Your task to perform on an android device: check google app version Image 0: 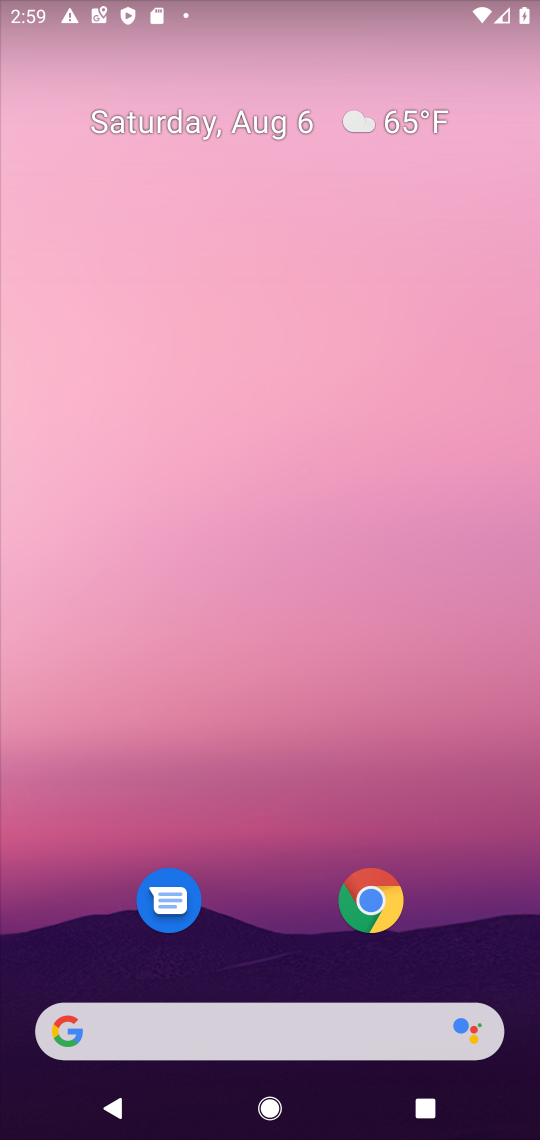
Step 0: press home button
Your task to perform on an android device: check google app version Image 1: 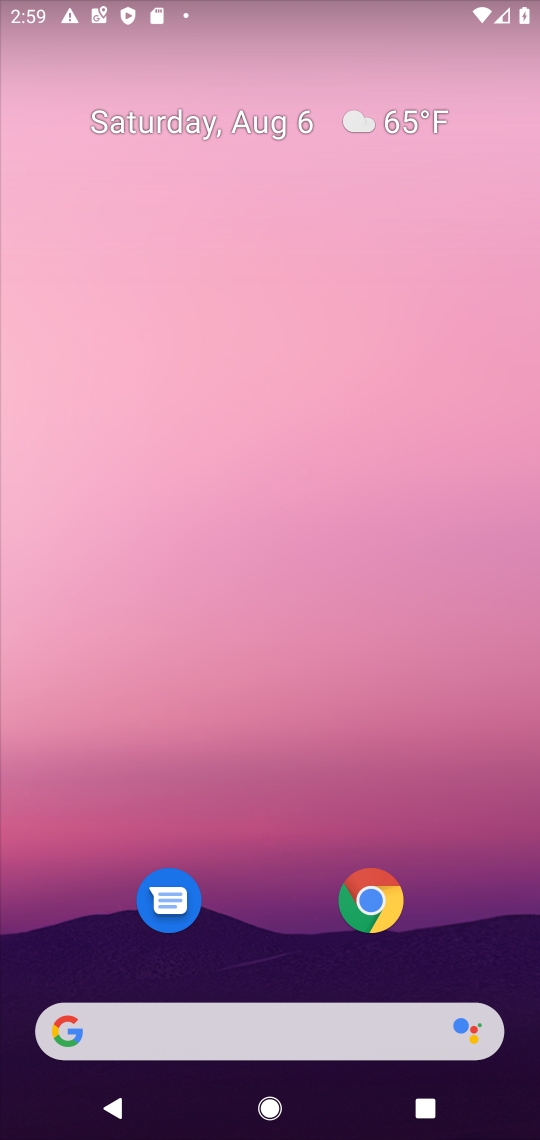
Step 1: drag from (260, 718) to (292, 260)
Your task to perform on an android device: check google app version Image 2: 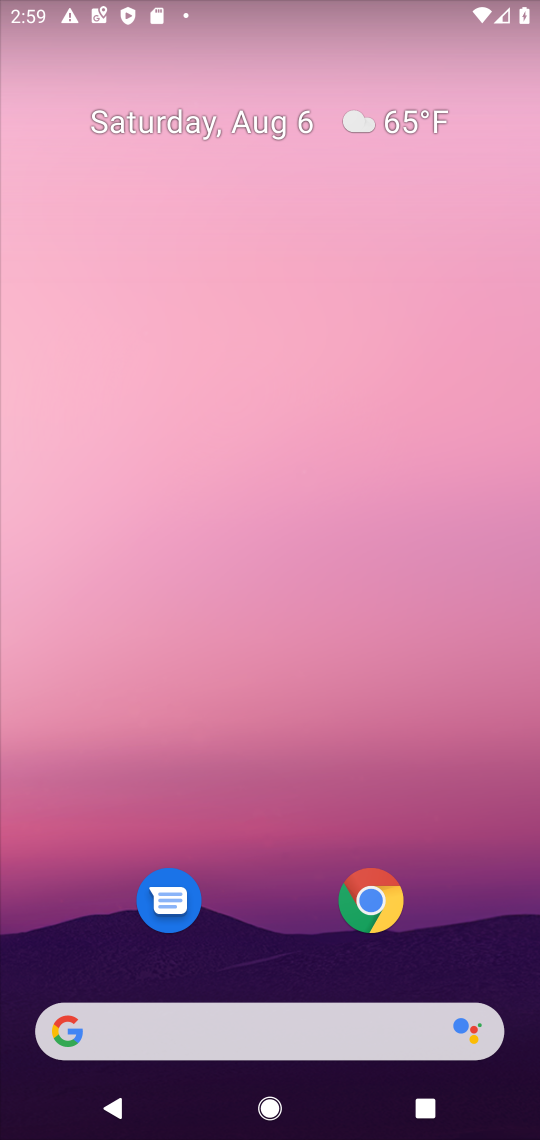
Step 2: drag from (291, 435) to (300, 95)
Your task to perform on an android device: check google app version Image 3: 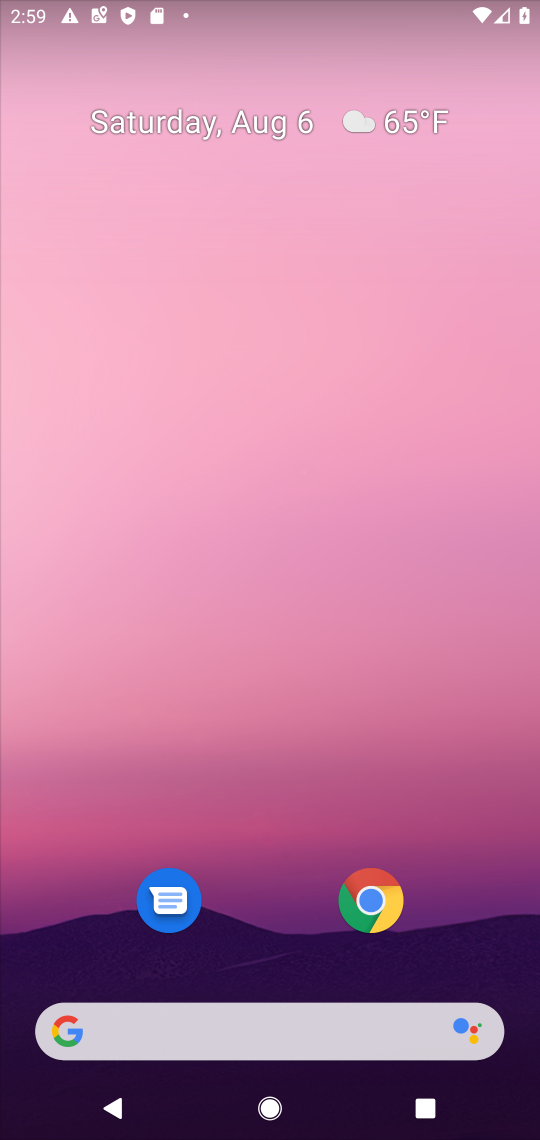
Step 3: drag from (244, 904) to (383, 25)
Your task to perform on an android device: check google app version Image 4: 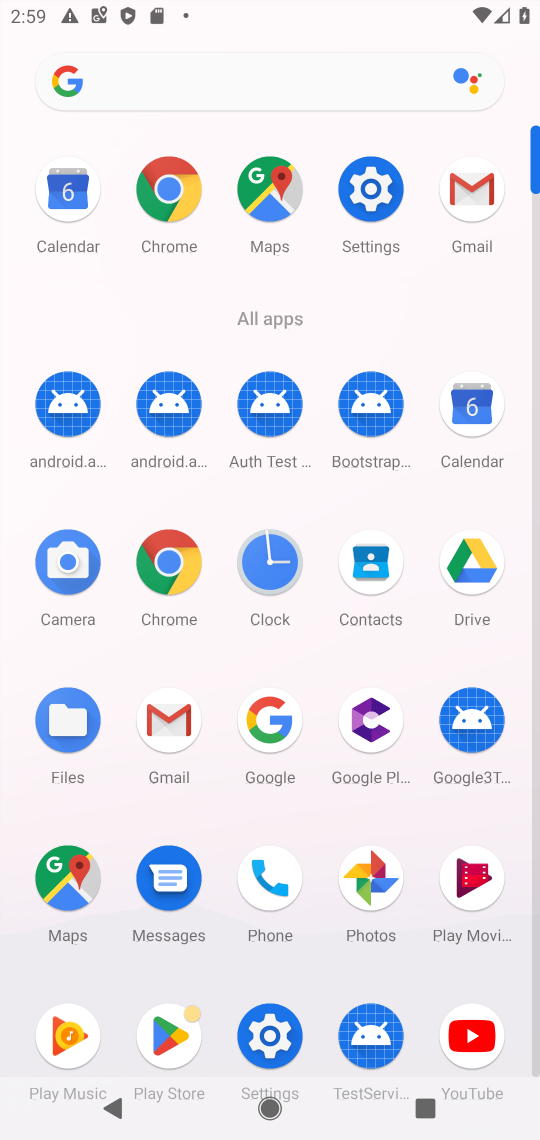
Step 4: click (271, 721)
Your task to perform on an android device: check google app version Image 5: 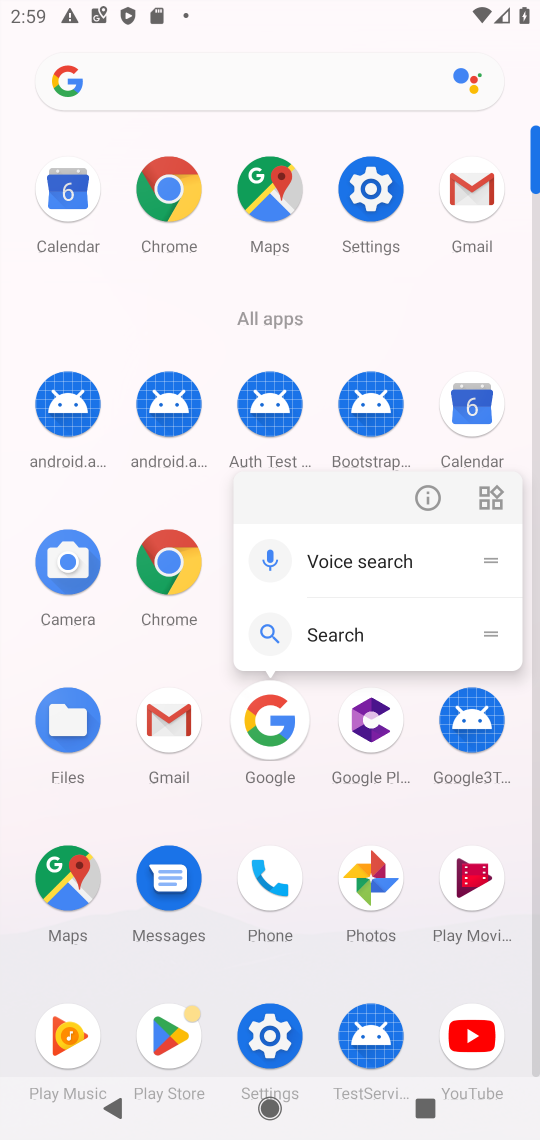
Step 5: click (411, 500)
Your task to perform on an android device: check google app version Image 6: 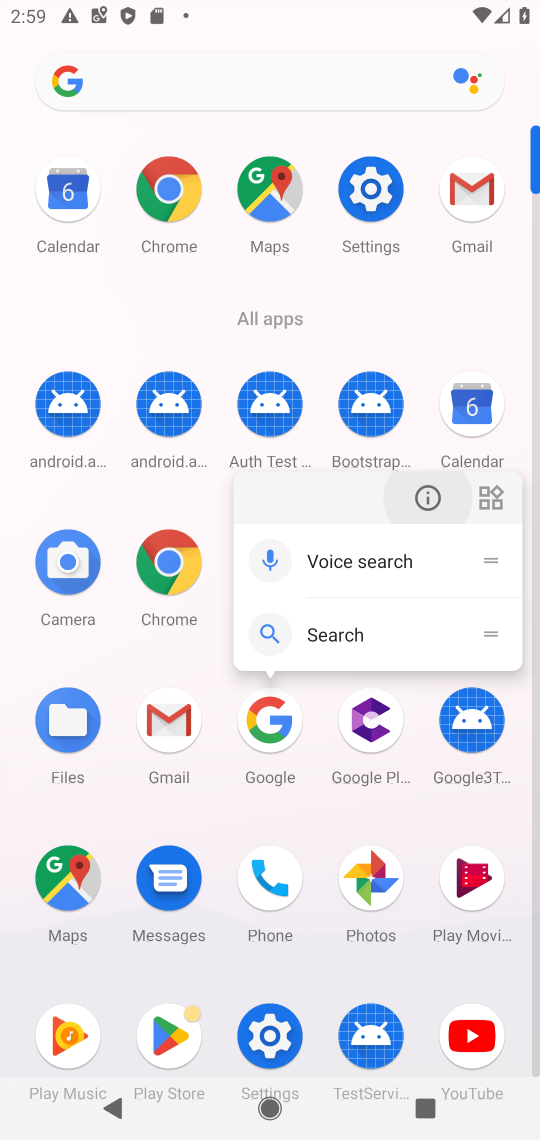
Step 6: click (419, 495)
Your task to perform on an android device: check google app version Image 7: 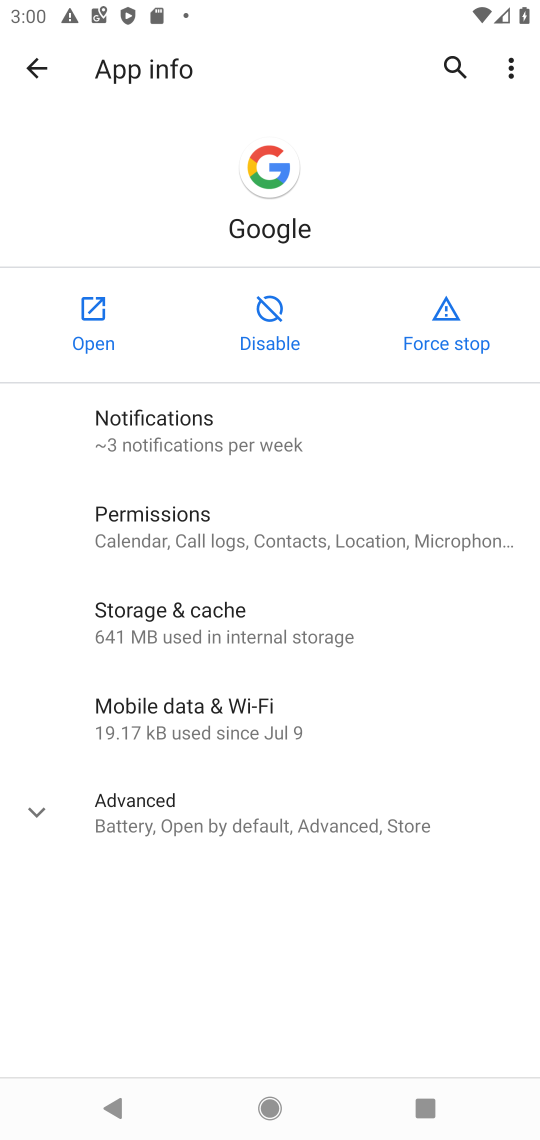
Step 7: drag from (276, 907) to (334, 334)
Your task to perform on an android device: check google app version Image 8: 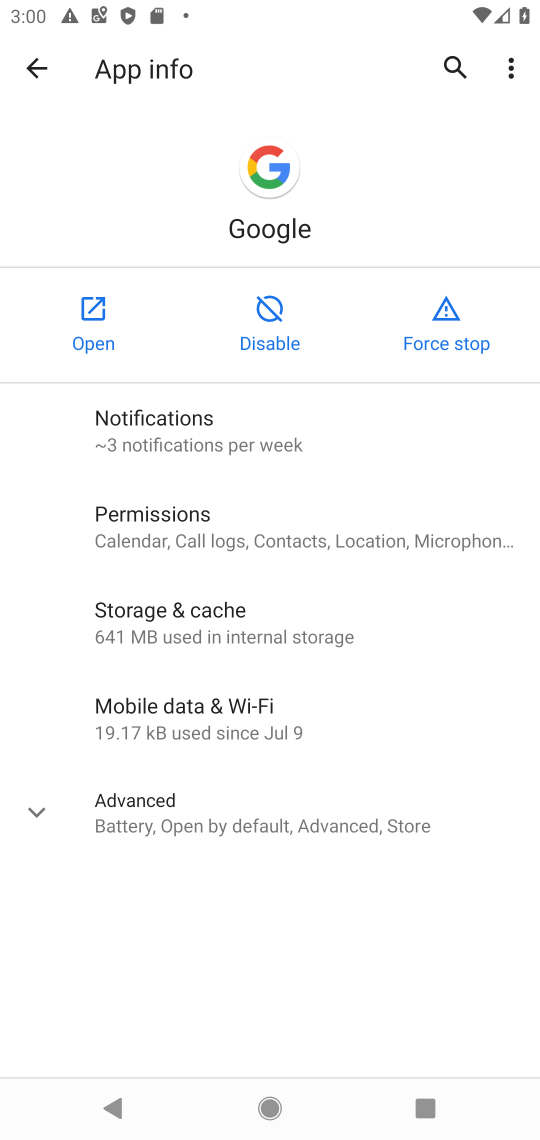
Step 8: click (36, 808)
Your task to perform on an android device: check google app version Image 9: 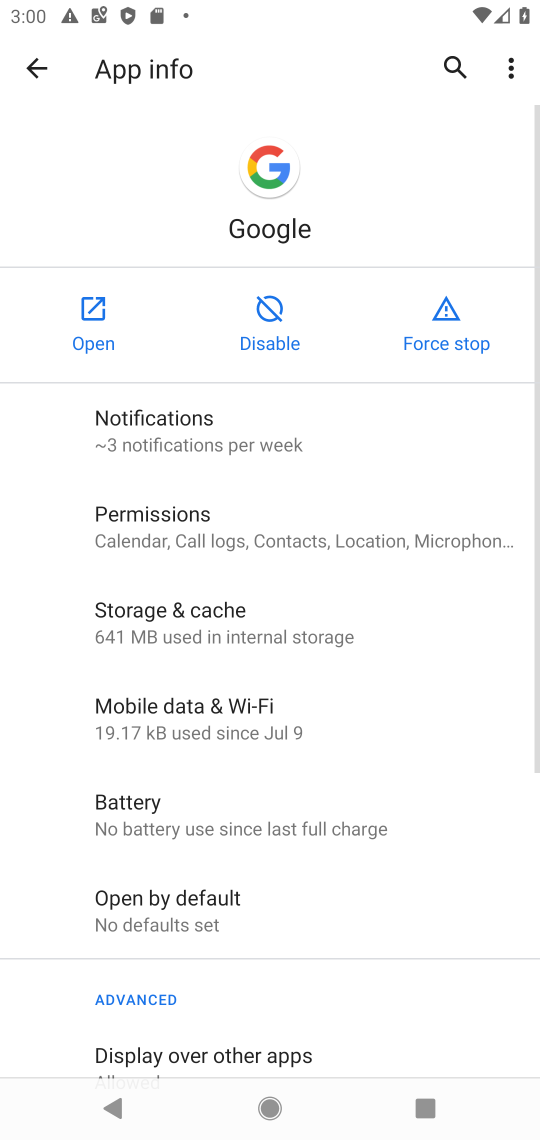
Step 9: task complete